Your task to perform on an android device: turn off wifi Image 0: 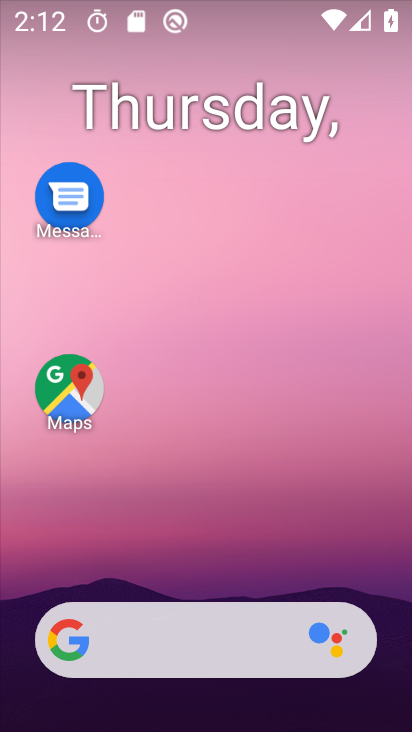
Step 0: drag from (112, 563) to (168, 204)
Your task to perform on an android device: turn off wifi Image 1: 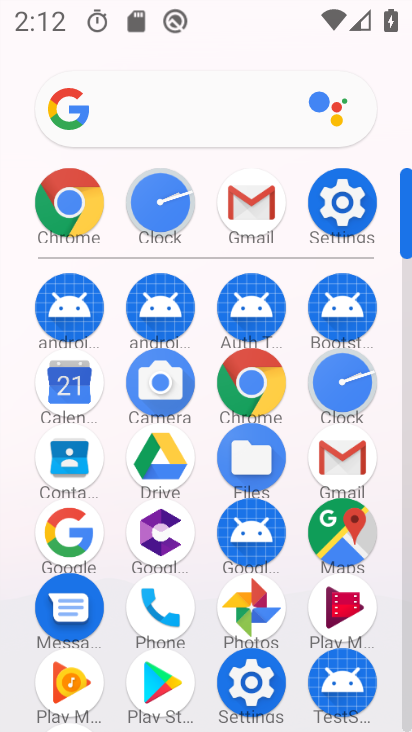
Step 1: click (341, 208)
Your task to perform on an android device: turn off wifi Image 2: 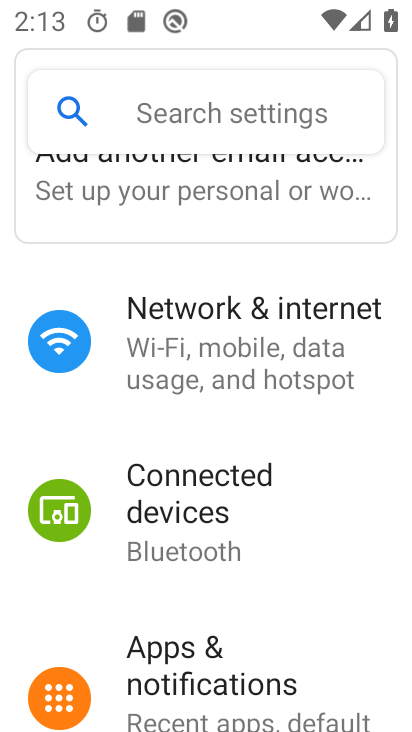
Step 2: click (237, 370)
Your task to perform on an android device: turn off wifi Image 3: 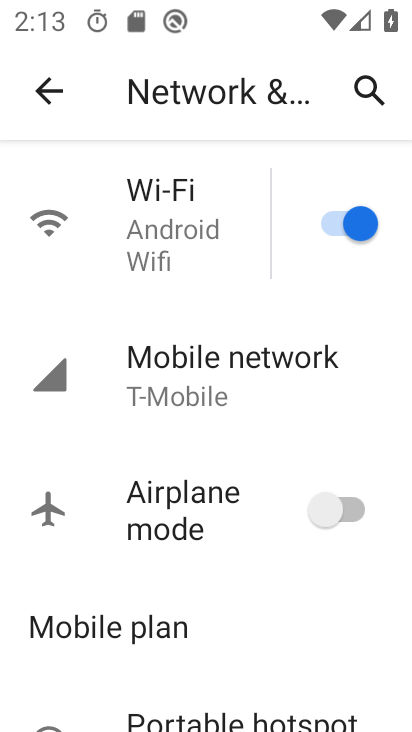
Step 3: click (330, 218)
Your task to perform on an android device: turn off wifi Image 4: 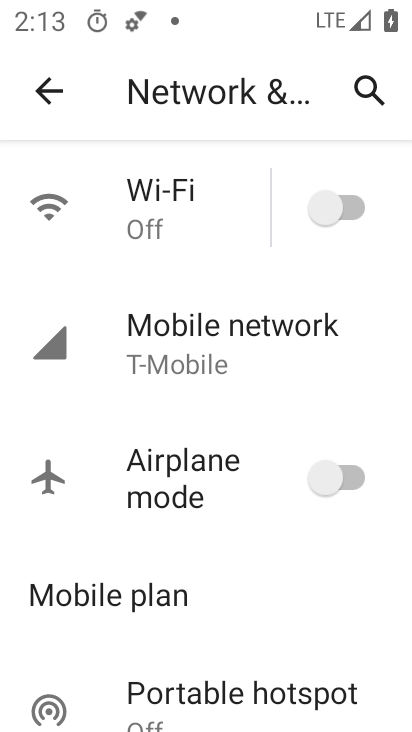
Step 4: task complete